Your task to perform on an android device: uninstall "Lyft - Rideshare, Bikes, Scooters & Transit" Image 0: 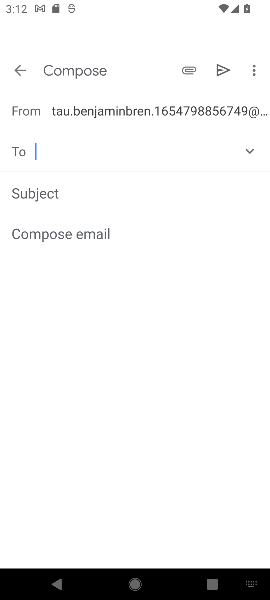
Step 0: press home button
Your task to perform on an android device: uninstall "Lyft - Rideshare, Bikes, Scooters & Transit" Image 1: 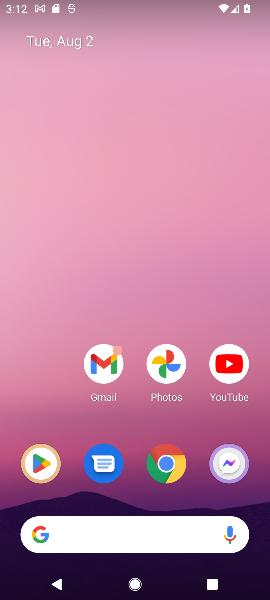
Step 1: click (45, 466)
Your task to perform on an android device: uninstall "Lyft - Rideshare, Bikes, Scooters & Transit" Image 2: 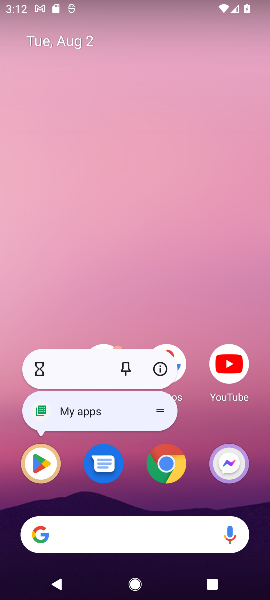
Step 2: click (37, 459)
Your task to perform on an android device: uninstall "Lyft - Rideshare, Bikes, Scooters & Transit" Image 3: 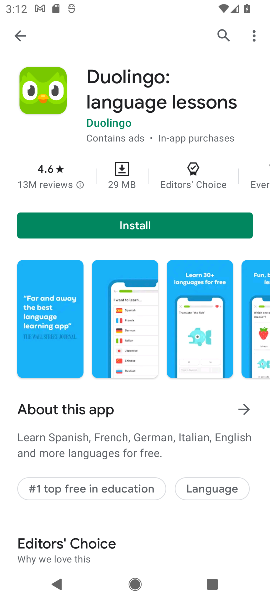
Step 3: click (221, 27)
Your task to perform on an android device: uninstall "Lyft - Rideshare, Bikes, Scooters & Transit" Image 4: 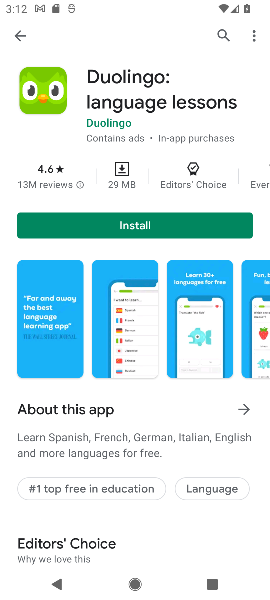
Step 4: click (225, 33)
Your task to perform on an android device: uninstall "Lyft - Rideshare, Bikes, Scooters & Transit" Image 5: 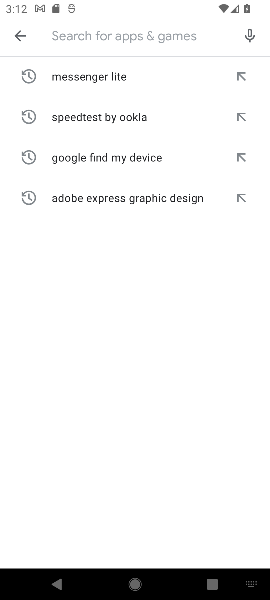
Step 5: type "Lyft - Rideshare, Bikes, Scooters & Transit"
Your task to perform on an android device: uninstall "Lyft - Rideshare, Bikes, Scooters & Transit" Image 6: 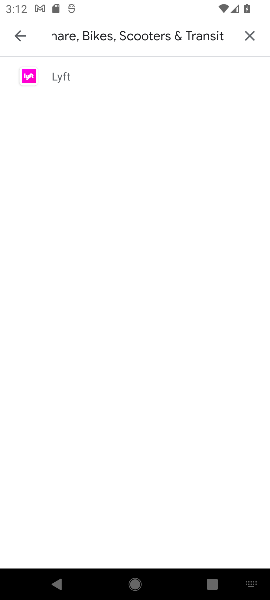
Step 6: click (68, 74)
Your task to perform on an android device: uninstall "Lyft - Rideshare, Bikes, Scooters & Transit" Image 7: 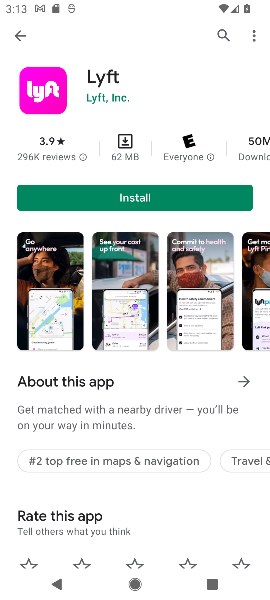
Step 7: task complete